Your task to perform on an android device: show emergency info Image 0: 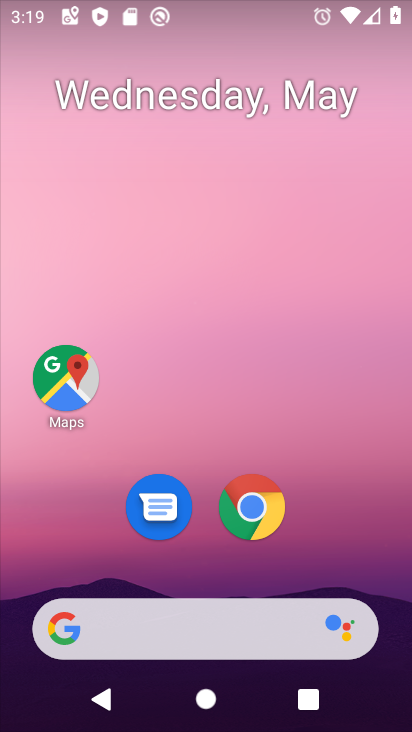
Step 0: drag from (223, 556) to (225, 96)
Your task to perform on an android device: show emergency info Image 1: 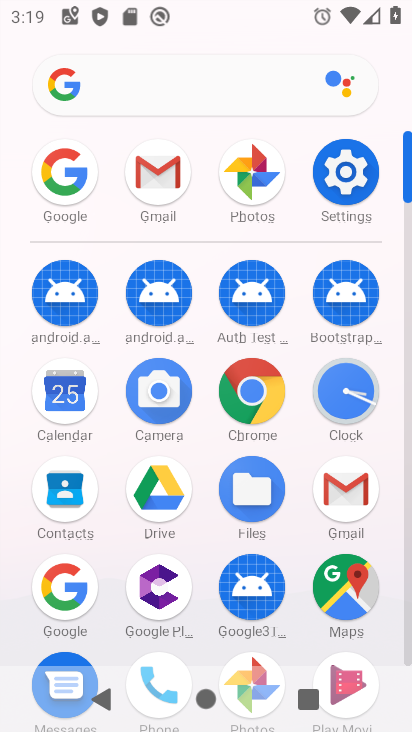
Step 1: click (345, 172)
Your task to perform on an android device: show emergency info Image 2: 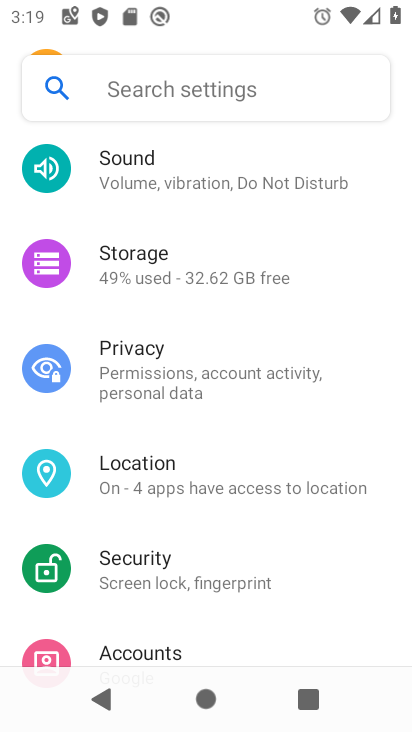
Step 2: drag from (262, 597) to (300, 101)
Your task to perform on an android device: show emergency info Image 3: 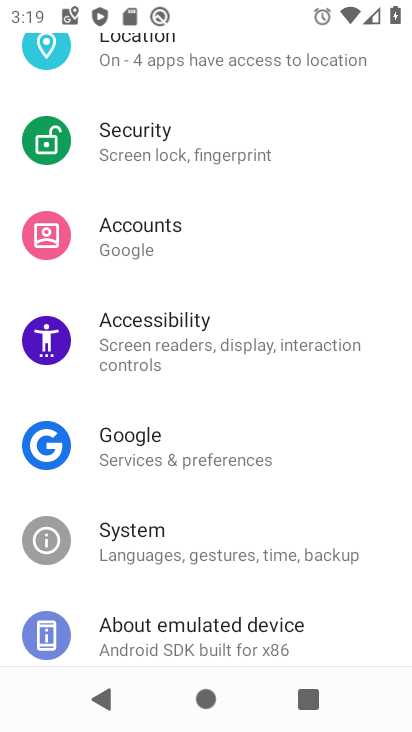
Step 3: drag from (225, 613) to (225, 251)
Your task to perform on an android device: show emergency info Image 4: 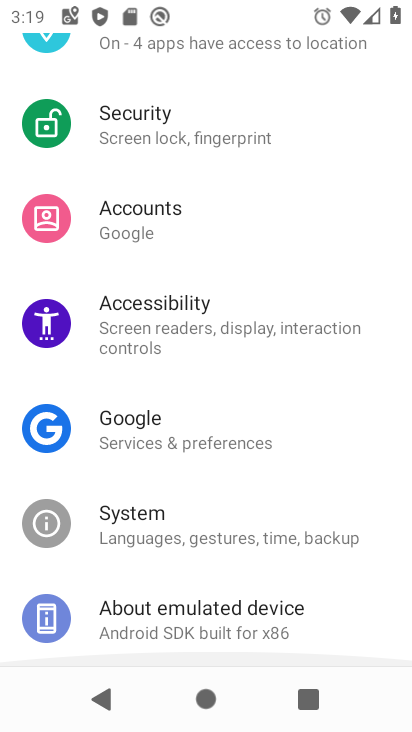
Step 4: click (190, 625)
Your task to perform on an android device: show emergency info Image 5: 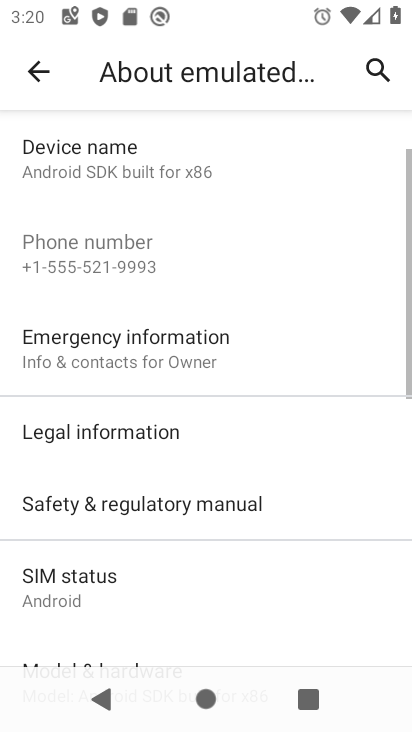
Step 5: click (163, 344)
Your task to perform on an android device: show emergency info Image 6: 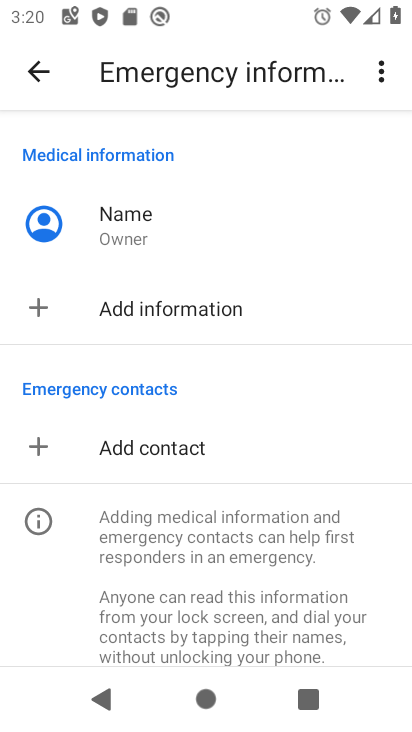
Step 6: task complete